Your task to perform on an android device: Open Google Chrome Image 0: 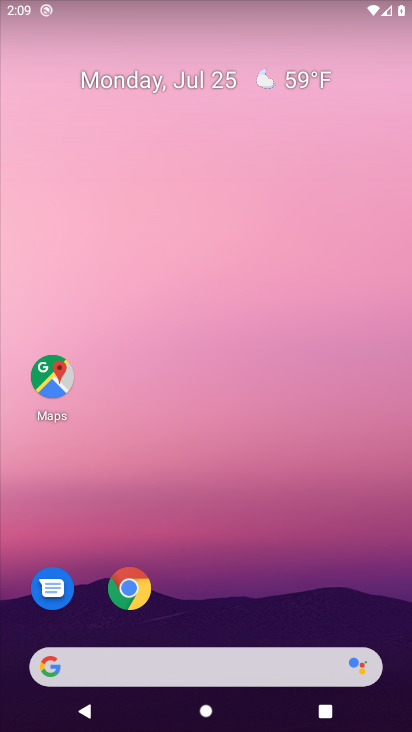
Step 0: click (133, 581)
Your task to perform on an android device: Open Google Chrome Image 1: 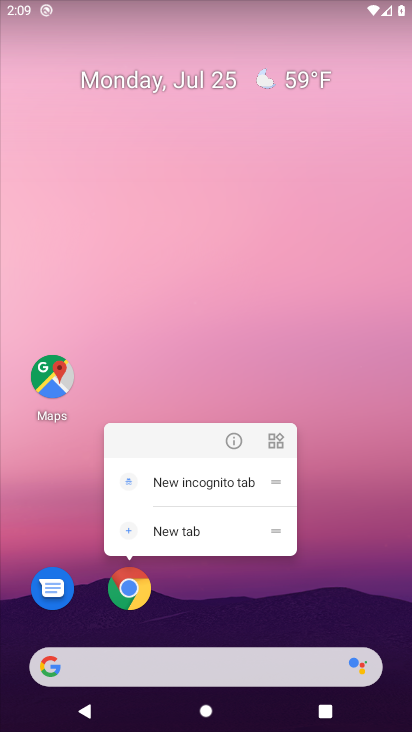
Step 1: click (133, 581)
Your task to perform on an android device: Open Google Chrome Image 2: 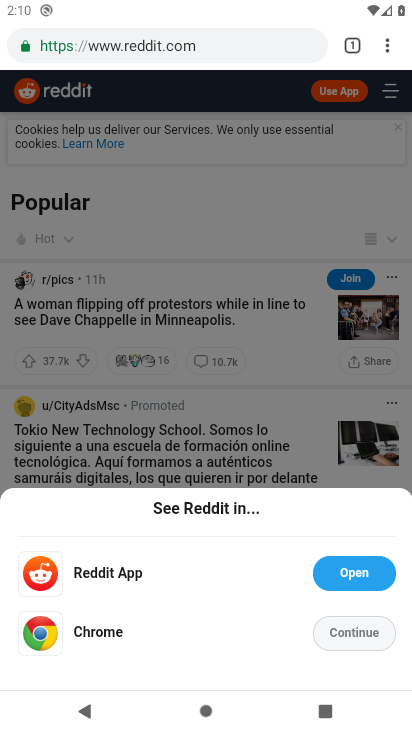
Step 2: click (353, 638)
Your task to perform on an android device: Open Google Chrome Image 3: 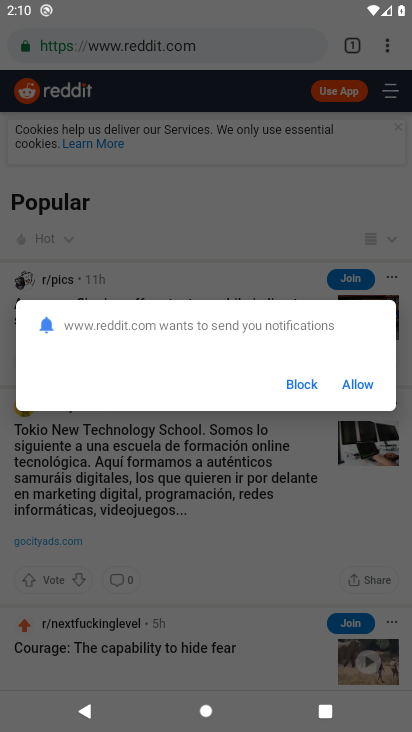
Step 3: click (365, 378)
Your task to perform on an android device: Open Google Chrome Image 4: 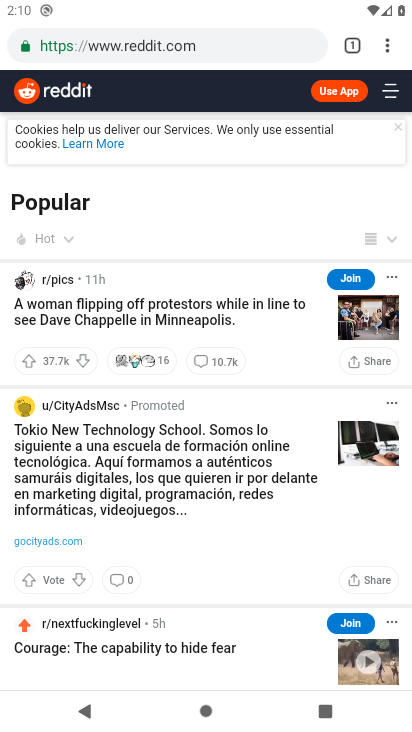
Step 4: task complete